Your task to perform on an android device: Is it going to rain today? Image 0: 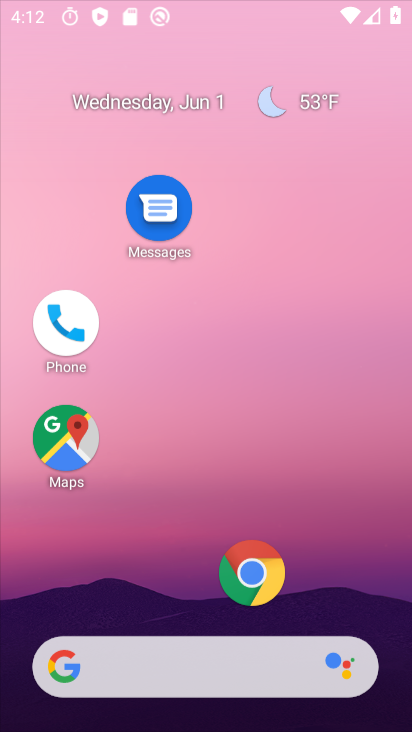
Step 0: drag from (193, 617) to (243, 74)
Your task to perform on an android device: Is it going to rain today? Image 1: 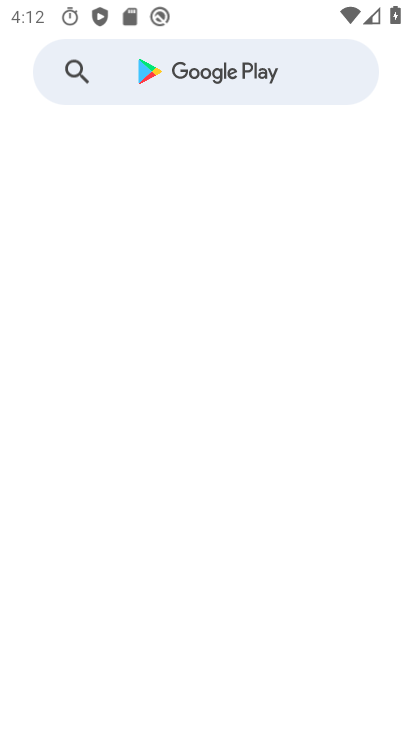
Step 1: press home button
Your task to perform on an android device: Is it going to rain today? Image 2: 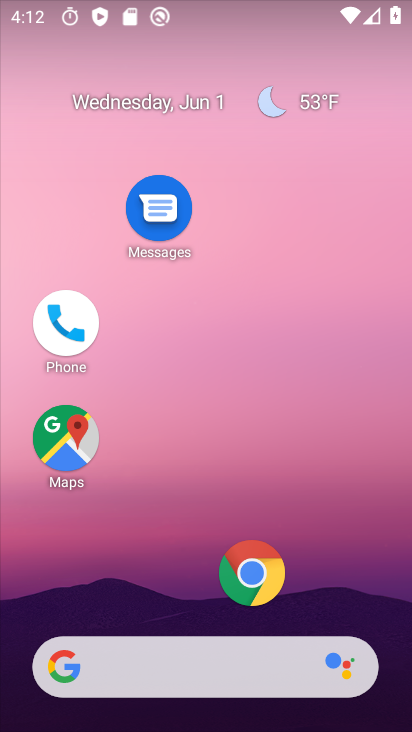
Step 2: click (320, 108)
Your task to perform on an android device: Is it going to rain today? Image 3: 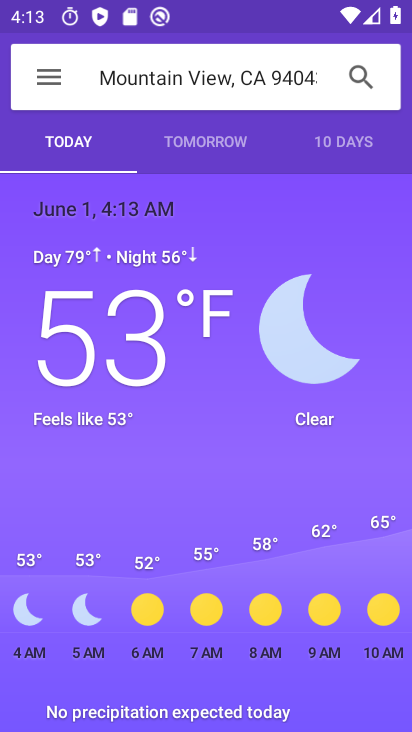
Step 3: task complete